Your task to perform on an android device: Search for Italian restaurants on Maps Image 0: 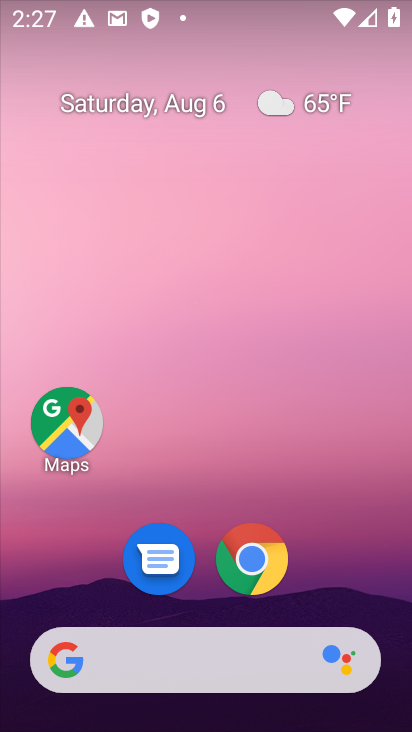
Step 0: click (55, 434)
Your task to perform on an android device: Search for Italian restaurants on Maps Image 1: 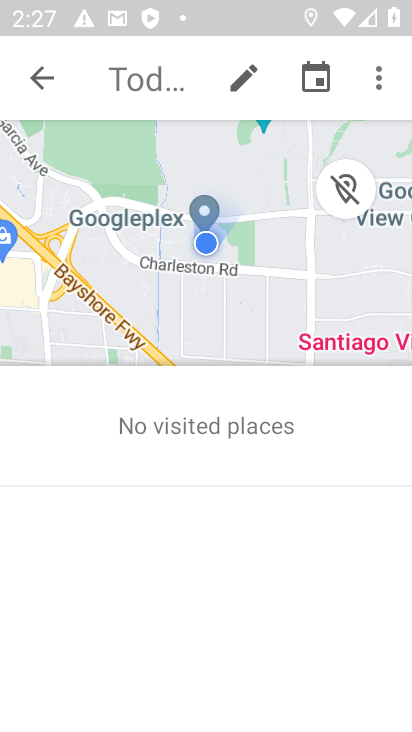
Step 1: click (43, 83)
Your task to perform on an android device: Search for Italian restaurants on Maps Image 2: 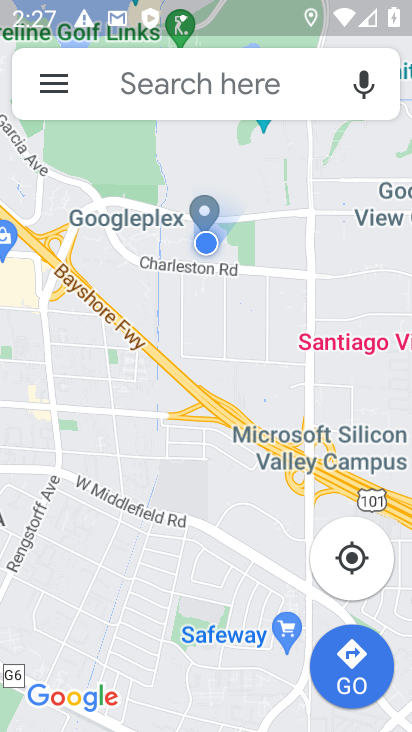
Step 2: click (137, 89)
Your task to perform on an android device: Search for Italian restaurants on Maps Image 3: 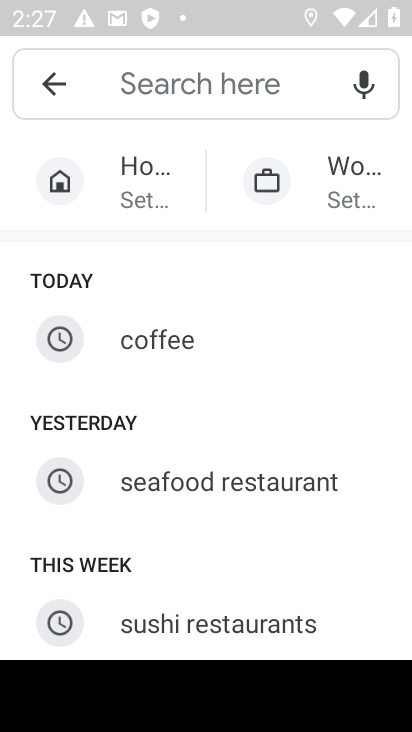
Step 3: drag from (241, 575) to (246, 305)
Your task to perform on an android device: Search for Italian restaurants on Maps Image 4: 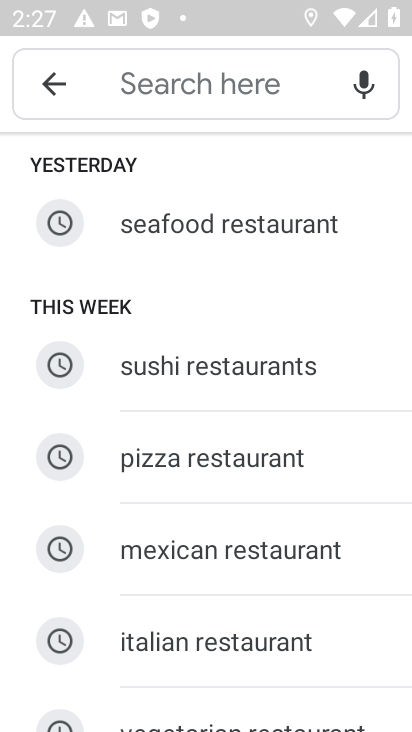
Step 4: click (225, 625)
Your task to perform on an android device: Search for Italian restaurants on Maps Image 5: 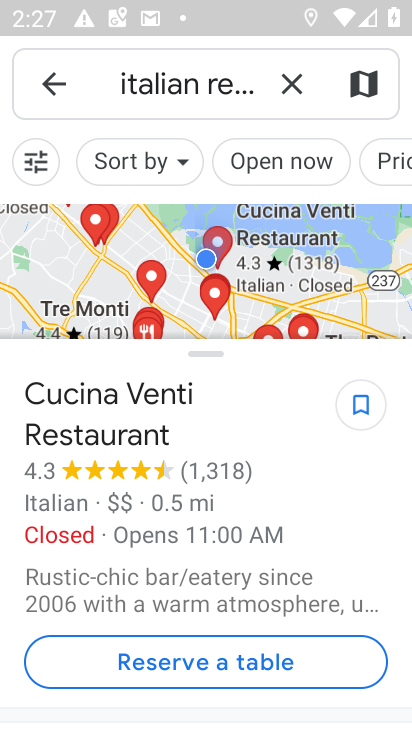
Step 5: task complete